Your task to perform on an android device: choose inbox layout in the gmail app Image 0: 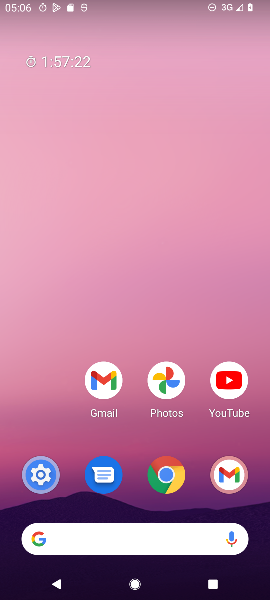
Step 0: press home button
Your task to perform on an android device: choose inbox layout in the gmail app Image 1: 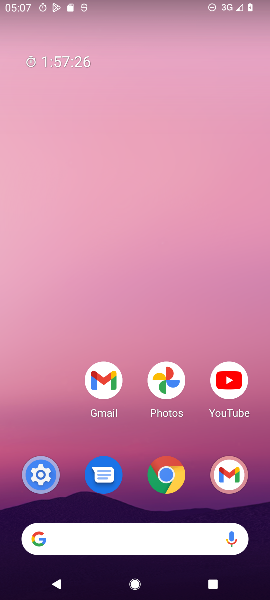
Step 1: drag from (62, 423) to (62, 212)
Your task to perform on an android device: choose inbox layout in the gmail app Image 2: 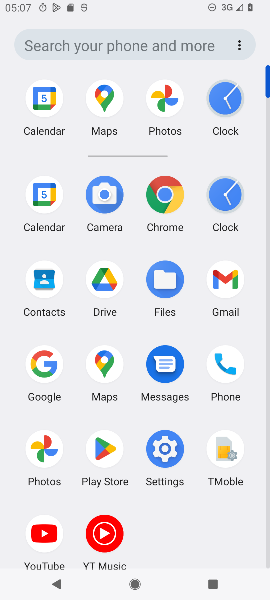
Step 2: click (224, 275)
Your task to perform on an android device: choose inbox layout in the gmail app Image 3: 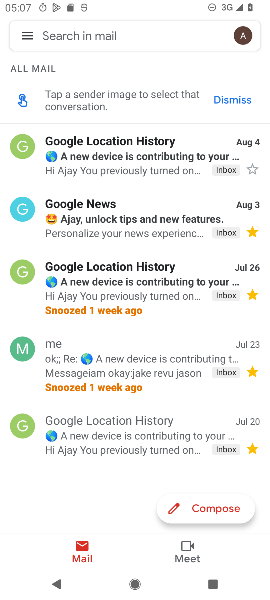
Step 3: click (27, 31)
Your task to perform on an android device: choose inbox layout in the gmail app Image 4: 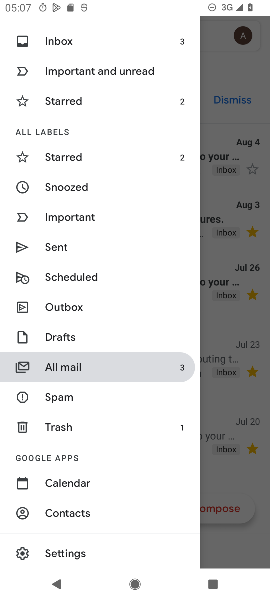
Step 4: click (87, 546)
Your task to perform on an android device: choose inbox layout in the gmail app Image 5: 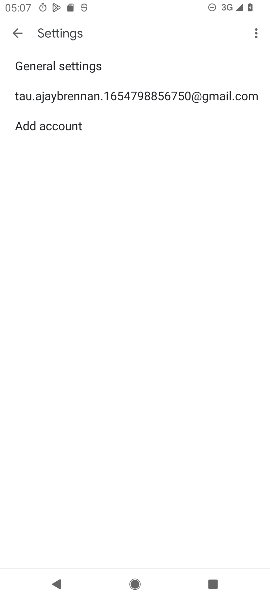
Step 5: click (164, 94)
Your task to perform on an android device: choose inbox layout in the gmail app Image 6: 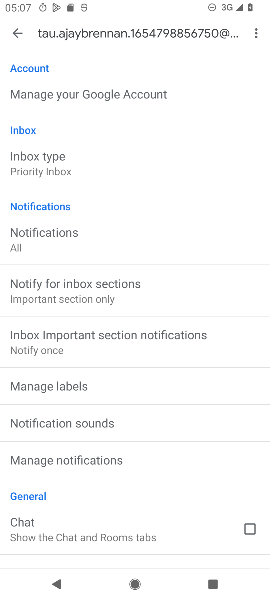
Step 6: drag from (204, 402) to (215, 340)
Your task to perform on an android device: choose inbox layout in the gmail app Image 7: 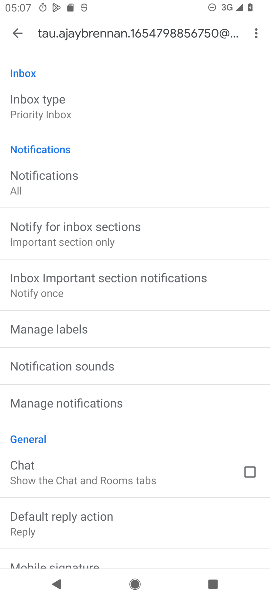
Step 7: drag from (196, 437) to (196, 325)
Your task to perform on an android device: choose inbox layout in the gmail app Image 8: 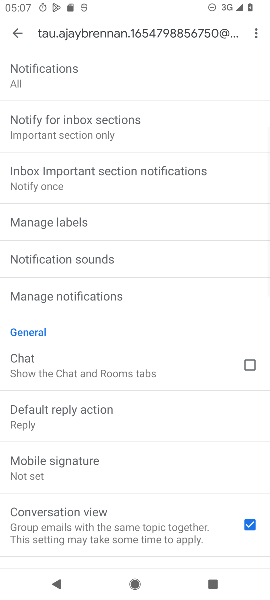
Step 8: drag from (176, 420) to (179, 349)
Your task to perform on an android device: choose inbox layout in the gmail app Image 9: 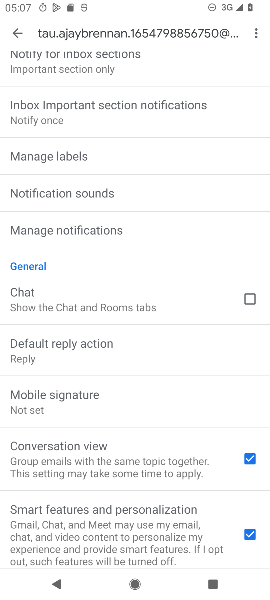
Step 9: drag from (200, 159) to (206, 265)
Your task to perform on an android device: choose inbox layout in the gmail app Image 10: 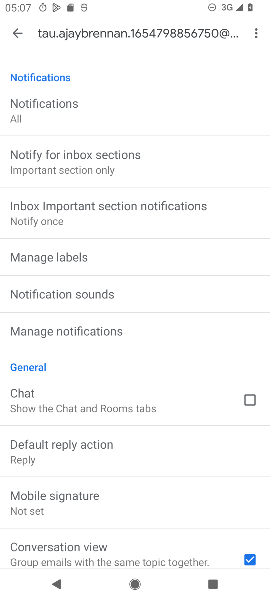
Step 10: drag from (196, 125) to (204, 247)
Your task to perform on an android device: choose inbox layout in the gmail app Image 11: 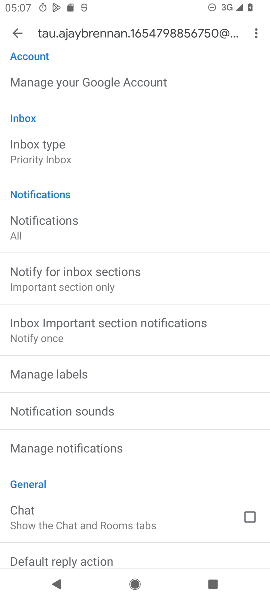
Step 11: drag from (188, 151) to (205, 265)
Your task to perform on an android device: choose inbox layout in the gmail app Image 12: 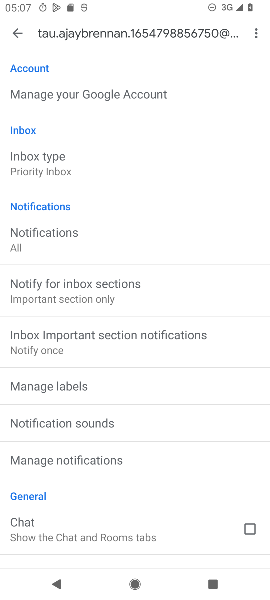
Step 12: click (71, 163)
Your task to perform on an android device: choose inbox layout in the gmail app Image 13: 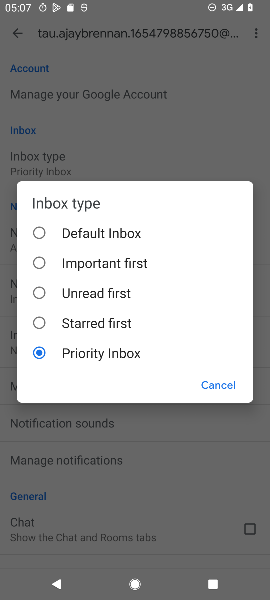
Step 13: click (109, 263)
Your task to perform on an android device: choose inbox layout in the gmail app Image 14: 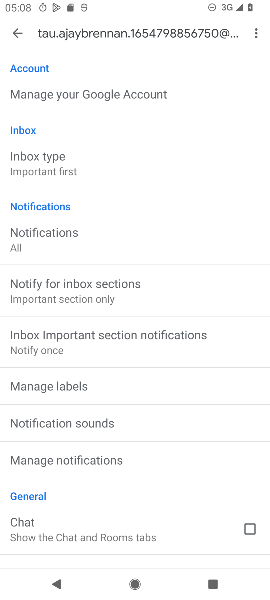
Step 14: task complete